Your task to perform on an android device: Open display settings Image 0: 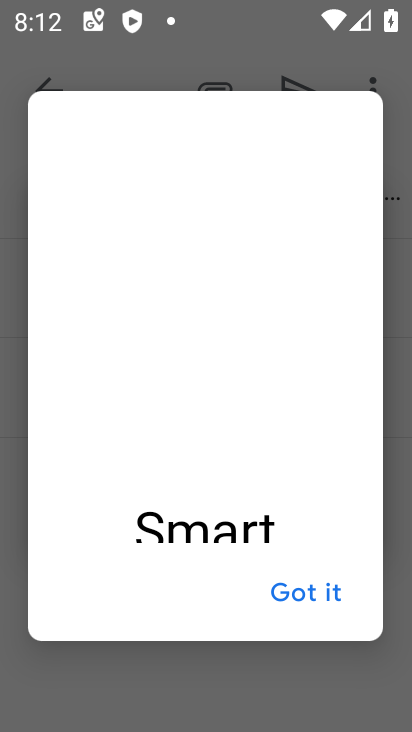
Step 0: press home button
Your task to perform on an android device: Open display settings Image 1: 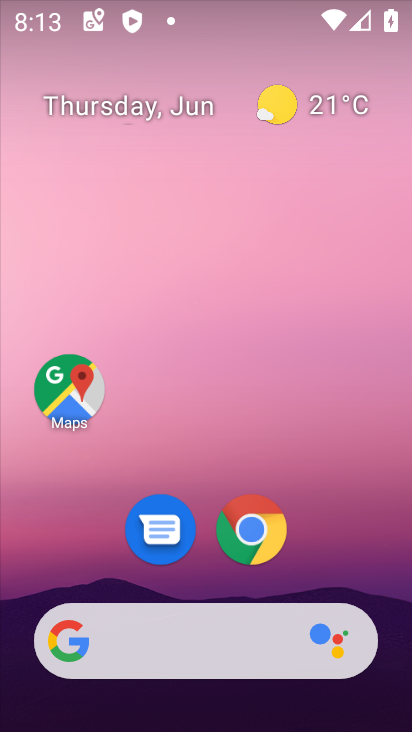
Step 1: drag from (363, 519) to (267, 74)
Your task to perform on an android device: Open display settings Image 2: 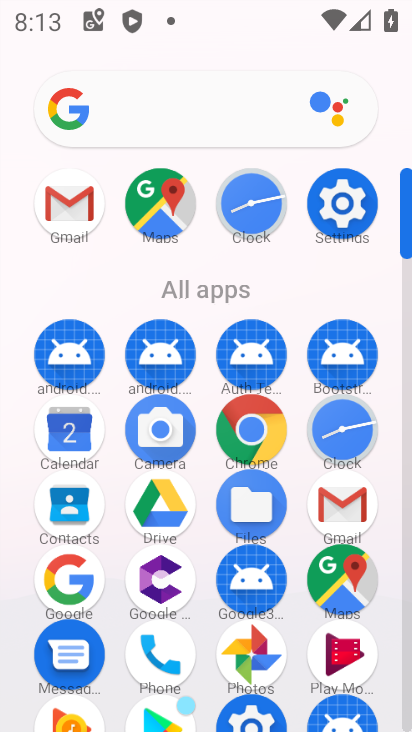
Step 2: click (335, 205)
Your task to perform on an android device: Open display settings Image 3: 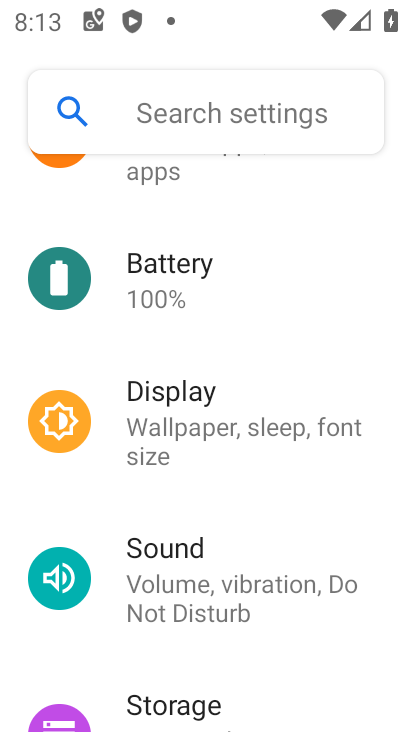
Step 3: click (161, 392)
Your task to perform on an android device: Open display settings Image 4: 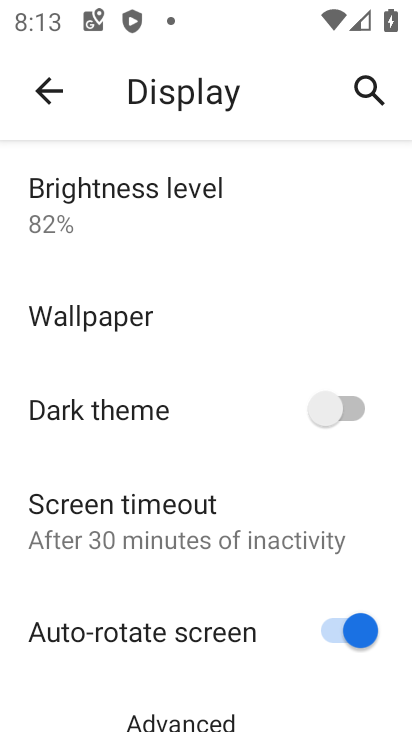
Step 4: task complete